Your task to perform on an android device: When is my next meeting? Image 0: 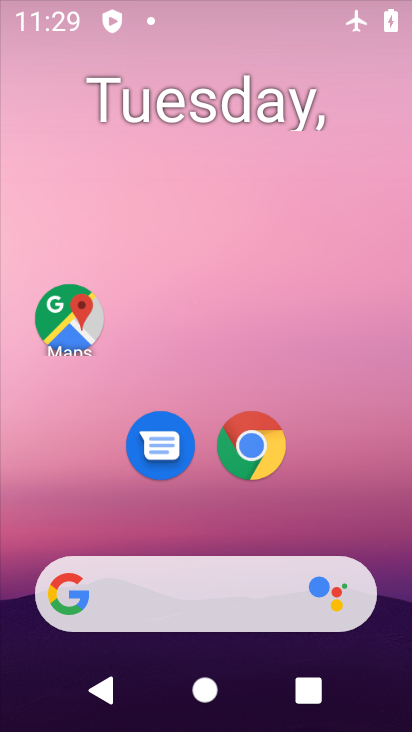
Step 0: drag from (355, 526) to (277, 34)
Your task to perform on an android device: When is my next meeting? Image 1: 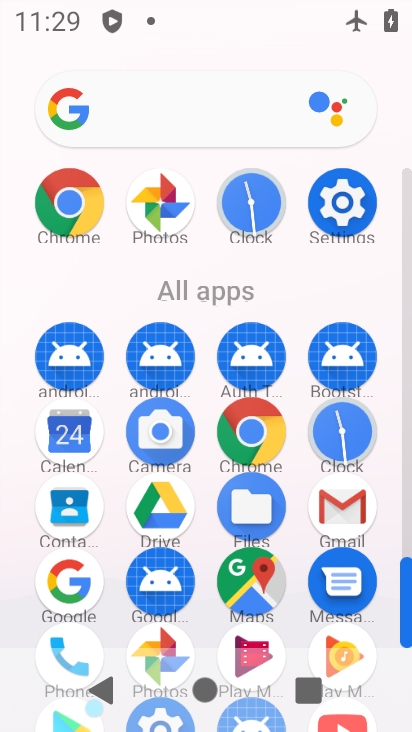
Step 1: drag from (19, 599) to (6, 298)
Your task to perform on an android device: When is my next meeting? Image 2: 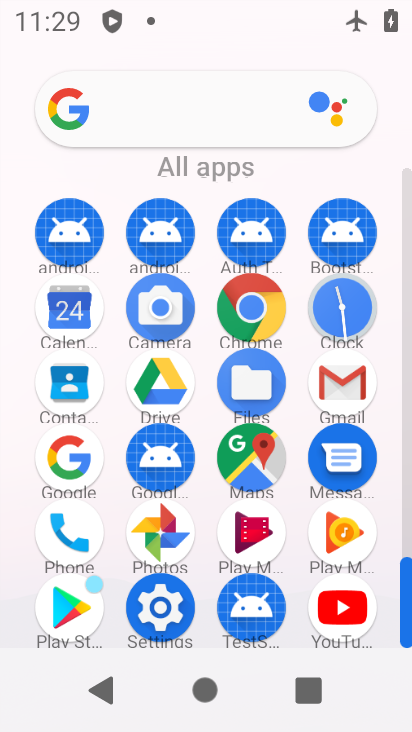
Step 2: drag from (7, 557) to (8, 340)
Your task to perform on an android device: When is my next meeting? Image 3: 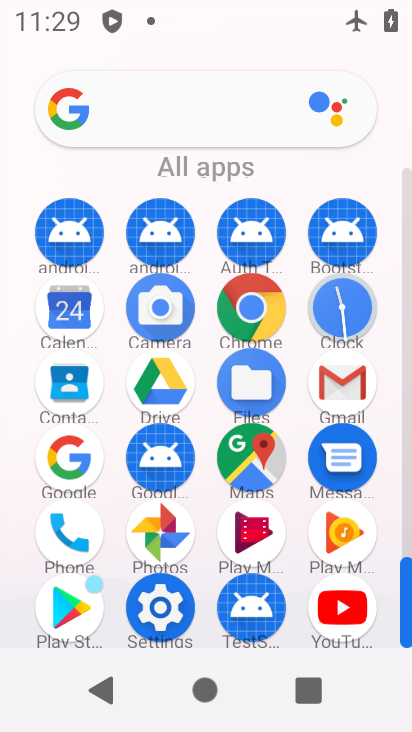
Step 3: click (67, 303)
Your task to perform on an android device: When is my next meeting? Image 4: 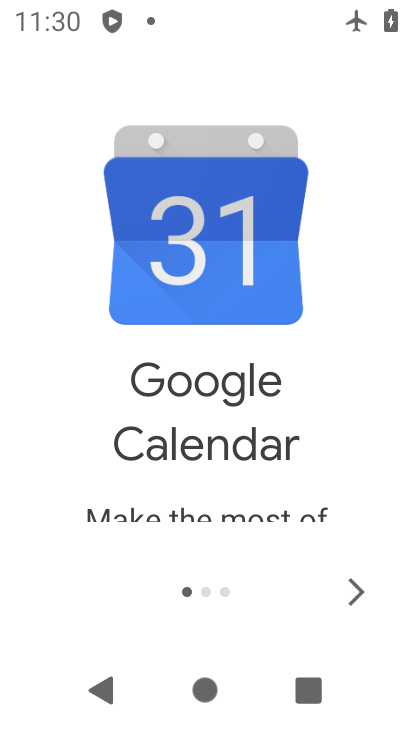
Step 4: click (343, 581)
Your task to perform on an android device: When is my next meeting? Image 5: 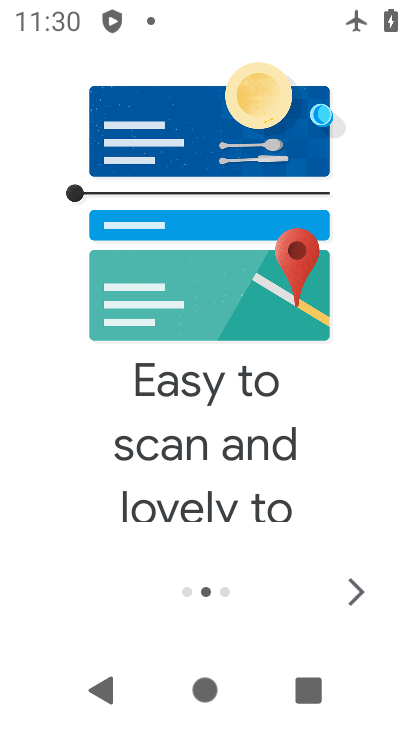
Step 5: click (343, 581)
Your task to perform on an android device: When is my next meeting? Image 6: 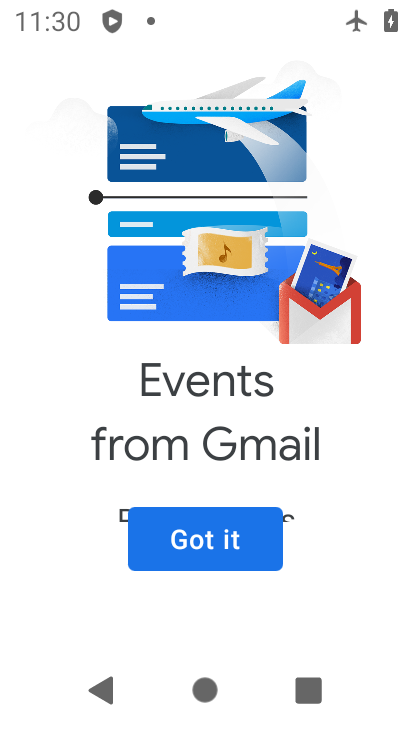
Step 6: click (343, 581)
Your task to perform on an android device: When is my next meeting? Image 7: 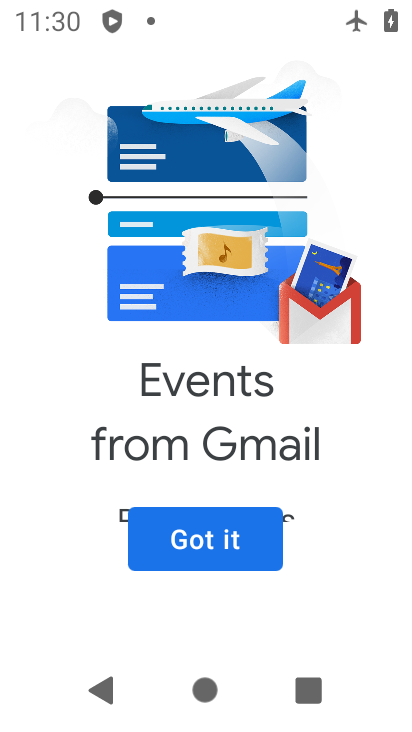
Step 7: click (198, 538)
Your task to perform on an android device: When is my next meeting? Image 8: 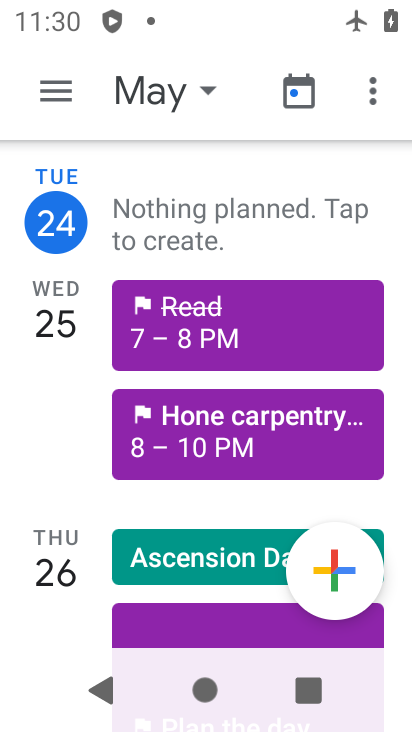
Step 8: click (50, 75)
Your task to perform on an android device: When is my next meeting? Image 9: 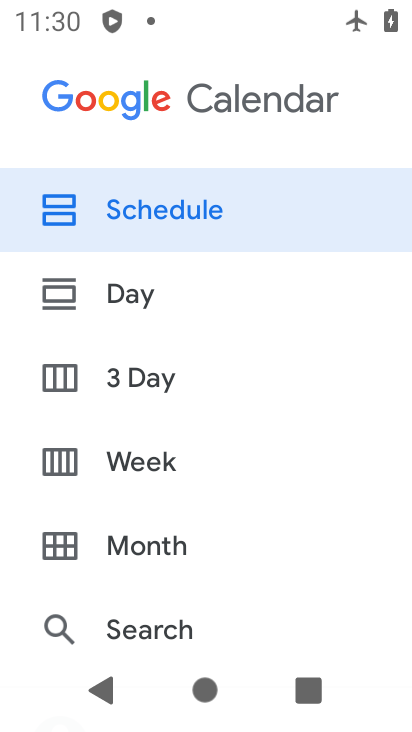
Step 9: click (163, 191)
Your task to perform on an android device: When is my next meeting? Image 10: 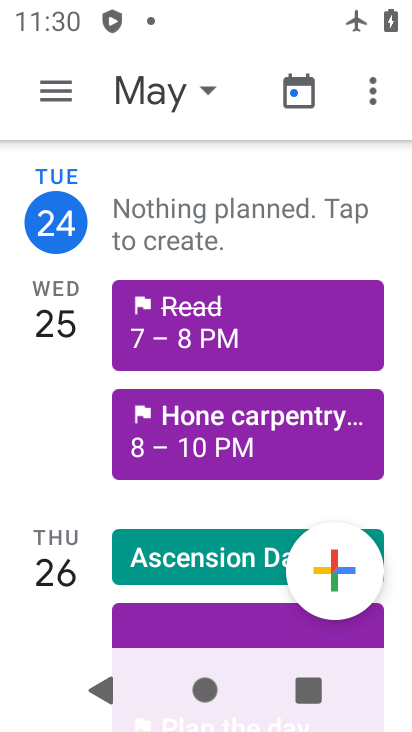
Step 10: task complete